Your task to perform on an android device: turn on bluetooth scan Image 0: 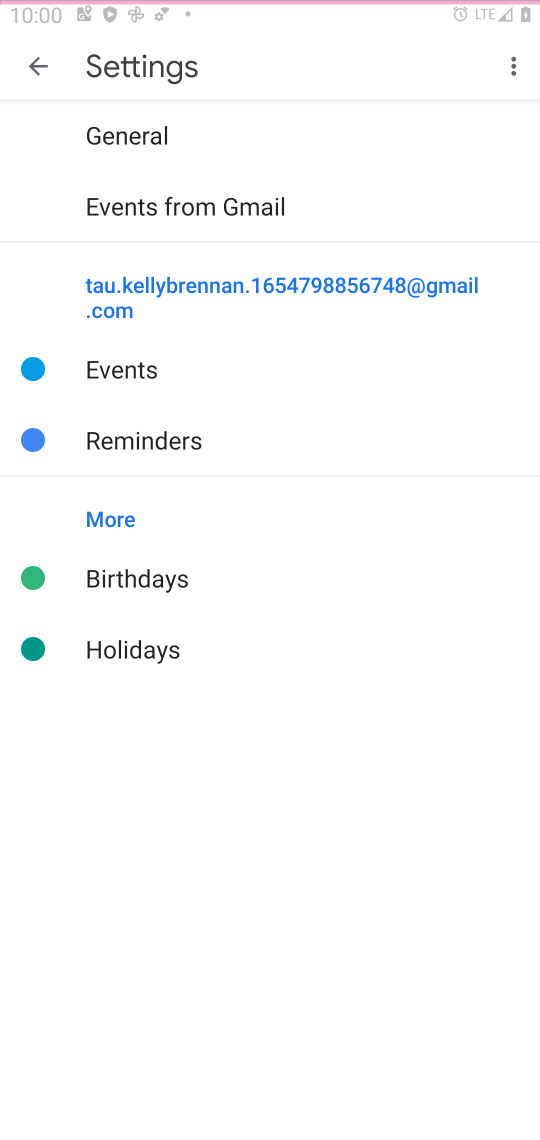
Step 0: drag from (359, 85) to (340, 33)
Your task to perform on an android device: turn on bluetooth scan Image 1: 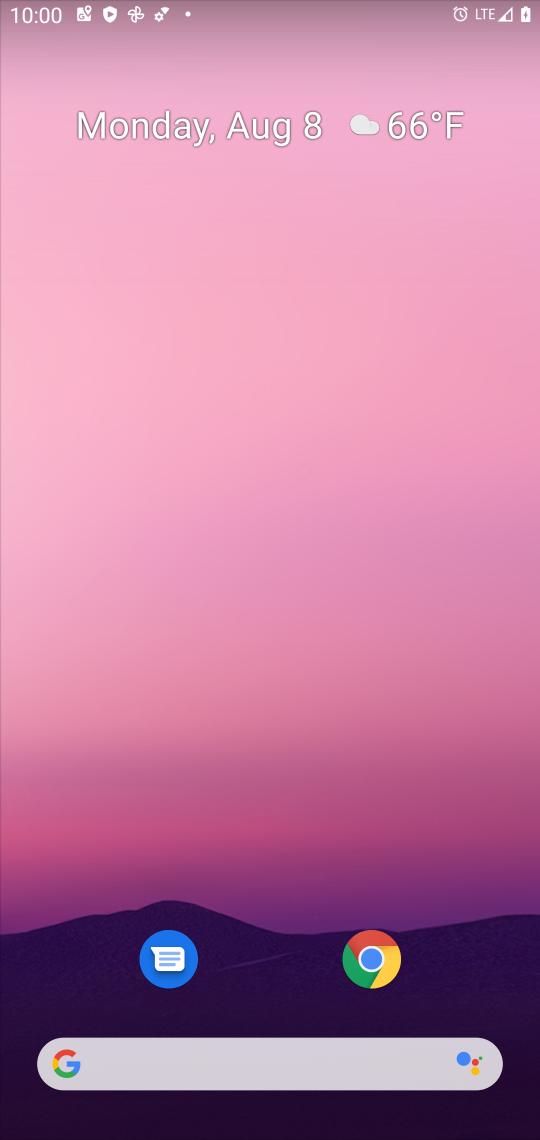
Step 1: drag from (371, 566) to (360, 83)
Your task to perform on an android device: turn on bluetooth scan Image 2: 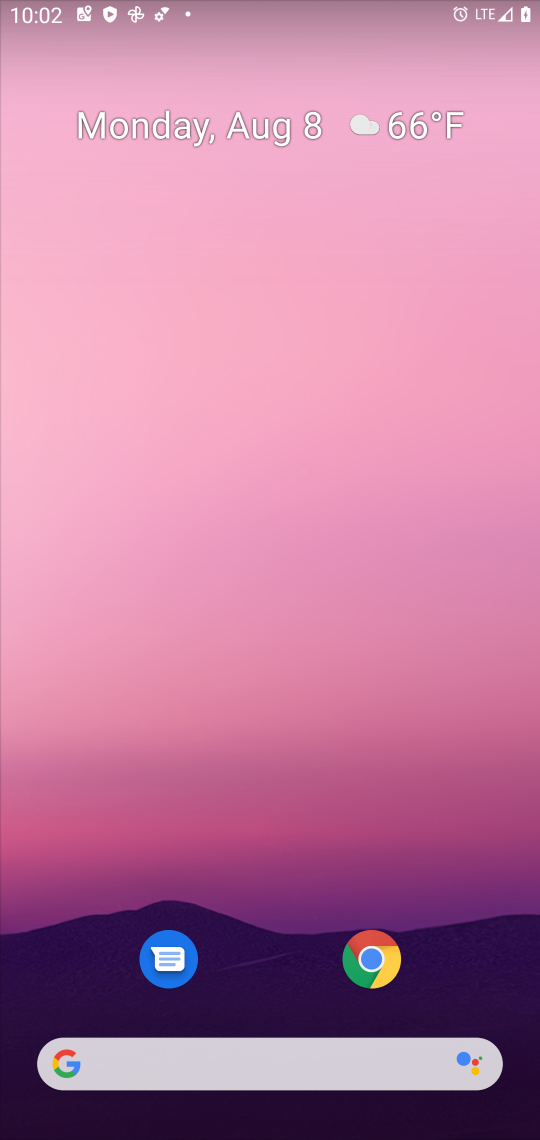
Step 2: drag from (301, 1007) to (118, 142)
Your task to perform on an android device: turn on bluetooth scan Image 3: 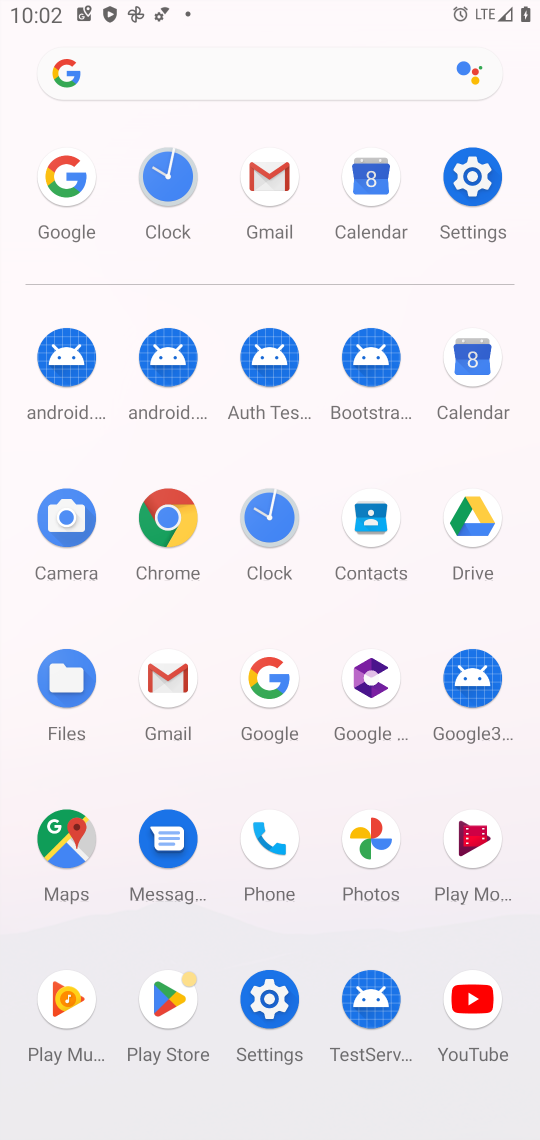
Step 3: click (263, 1007)
Your task to perform on an android device: turn on bluetooth scan Image 4: 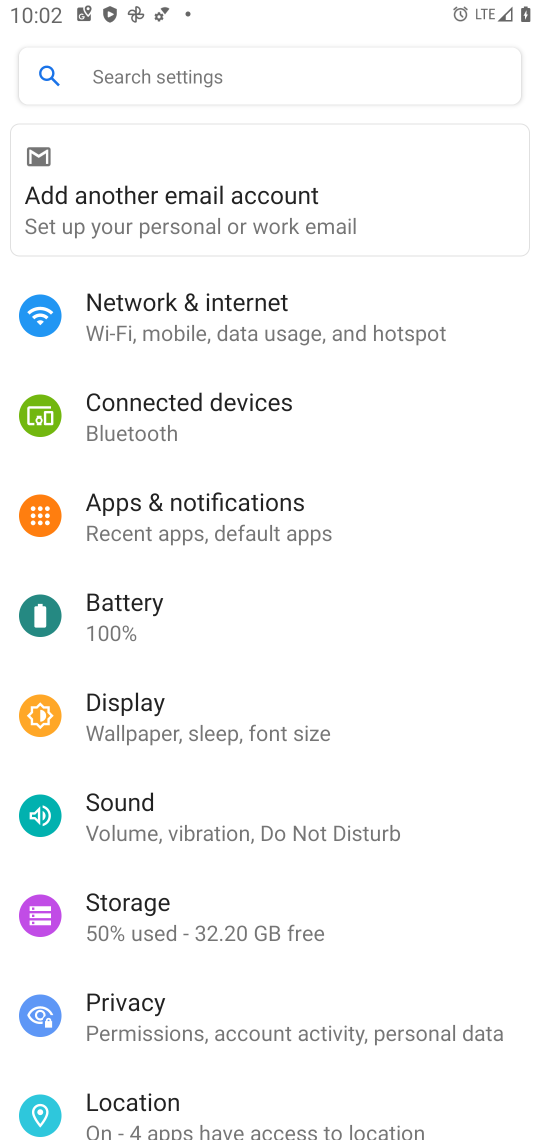
Step 4: click (187, 1126)
Your task to perform on an android device: turn on bluetooth scan Image 5: 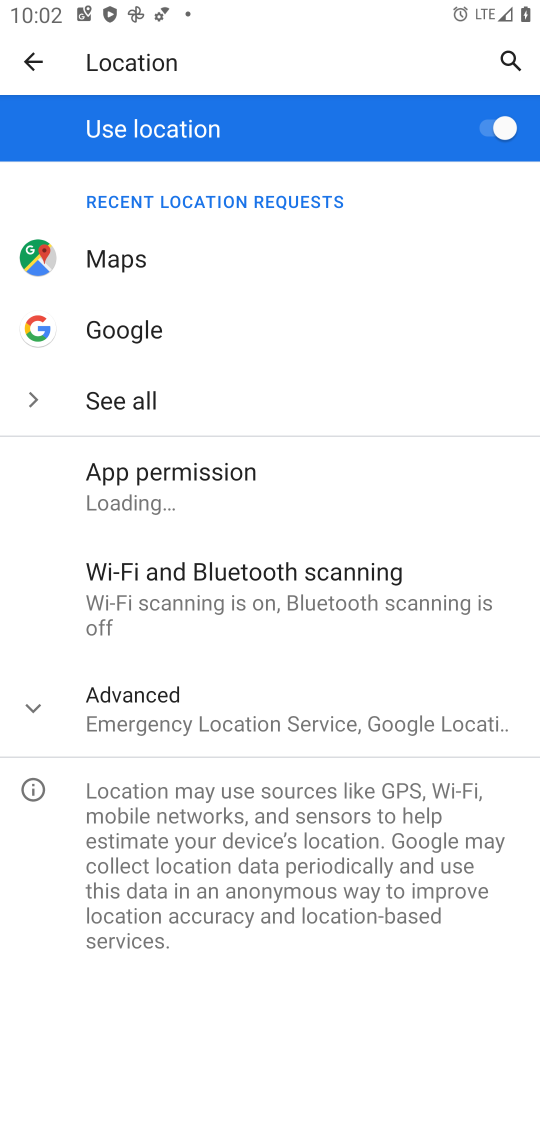
Step 5: click (337, 577)
Your task to perform on an android device: turn on bluetooth scan Image 6: 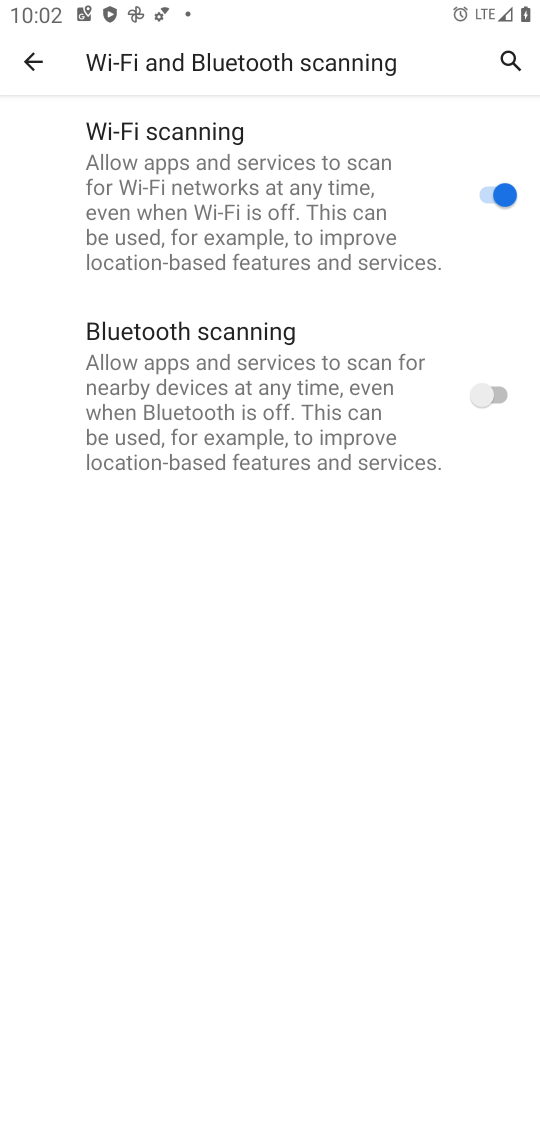
Step 6: click (447, 413)
Your task to perform on an android device: turn on bluetooth scan Image 7: 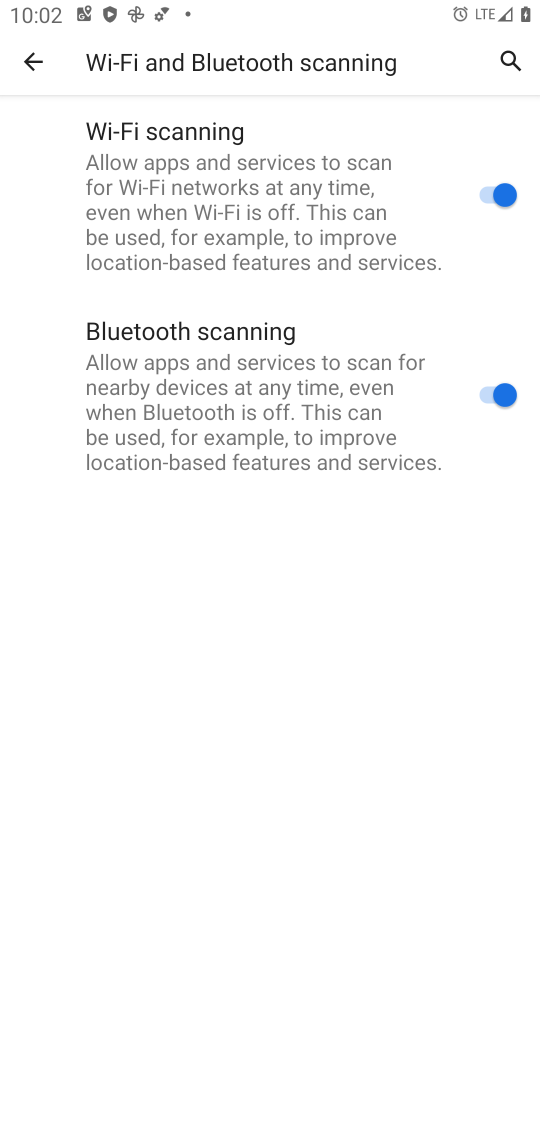
Step 7: task complete